Your task to perform on an android device: Search for flights from Chicago to London Image 0: 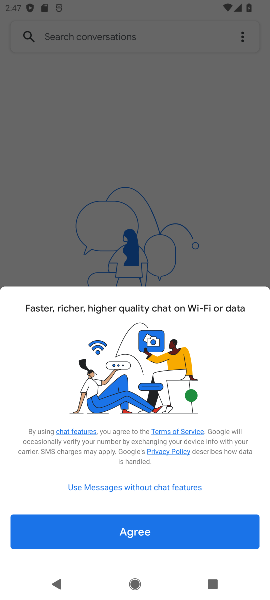
Step 0: press home button
Your task to perform on an android device: Search for flights from Chicago to London Image 1: 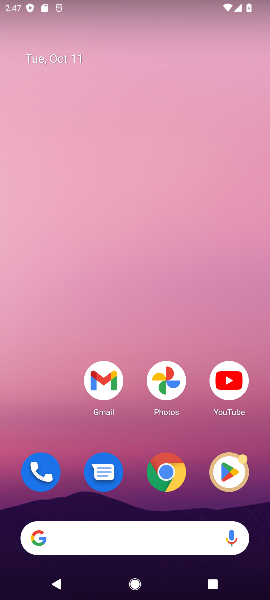
Step 1: click (175, 467)
Your task to perform on an android device: Search for flights from Chicago to London Image 2: 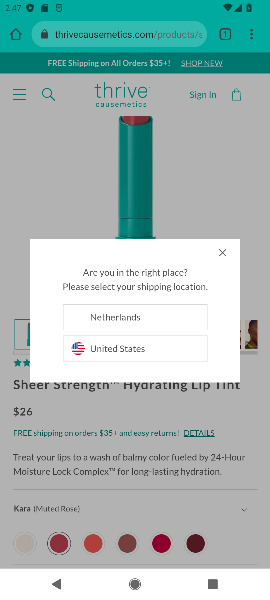
Step 2: click (146, 24)
Your task to perform on an android device: Search for flights from Chicago to London Image 3: 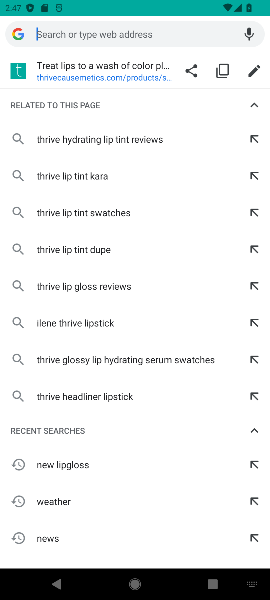
Step 3: type "Search for flights from Chicago to London"
Your task to perform on an android device: Search for flights from Chicago to London Image 4: 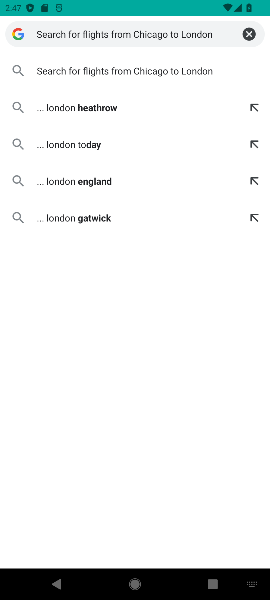
Step 4: click (225, 70)
Your task to perform on an android device: Search for flights from Chicago to London Image 5: 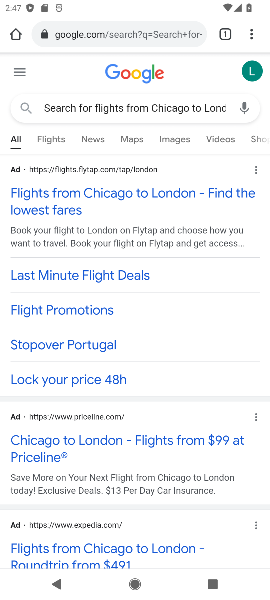
Step 5: drag from (177, 516) to (155, 184)
Your task to perform on an android device: Search for flights from Chicago to London Image 6: 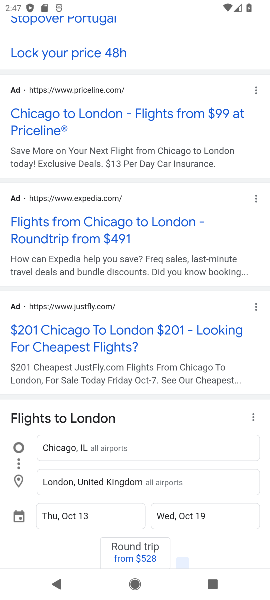
Step 6: drag from (163, 420) to (153, 133)
Your task to perform on an android device: Search for flights from Chicago to London Image 7: 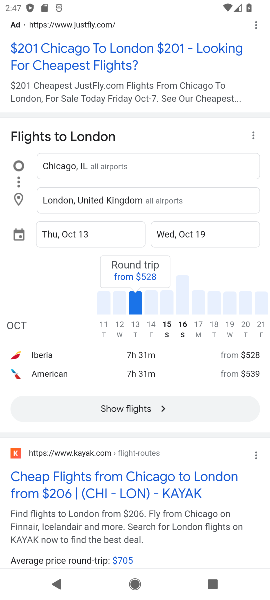
Step 7: click (137, 405)
Your task to perform on an android device: Search for flights from Chicago to London Image 8: 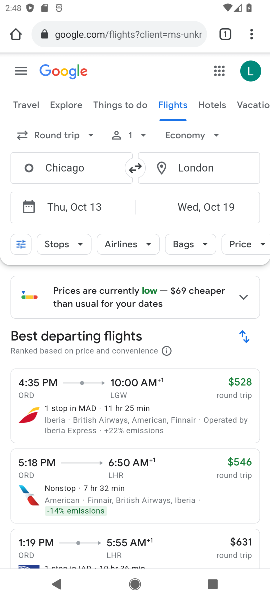
Step 8: task complete